Your task to perform on an android device: turn on javascript in the chrome app Image 0: 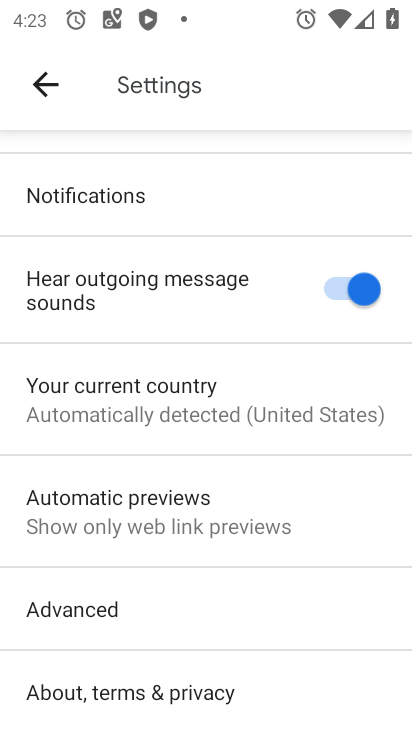
Step 0: press home button
Your task to perform on an android device: turn on javascript in the chrome app Image 1: 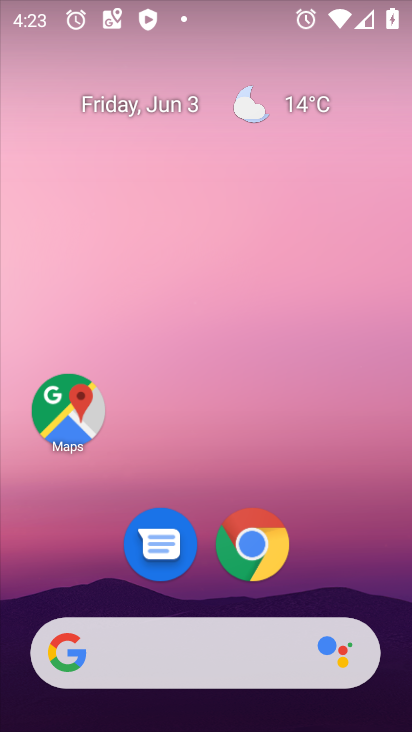
Step 1: click (251, 544)
Your task to perform on an android device: turn on javascript in the chrome app Image 2: 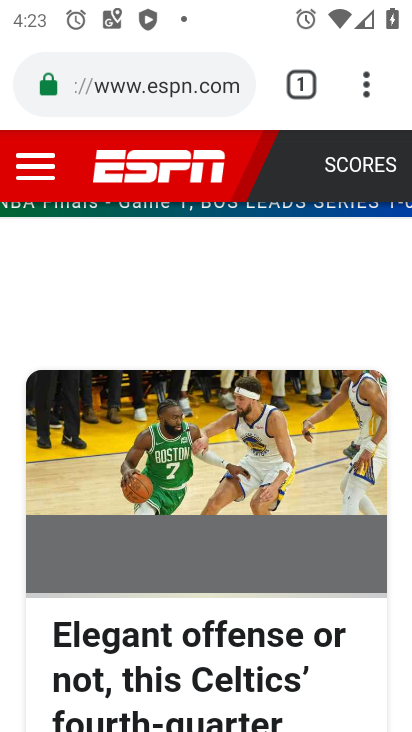
Step 2: click (365, 91)
Your task to perform on an android device: turn on javascript in the chrome app Image 3: 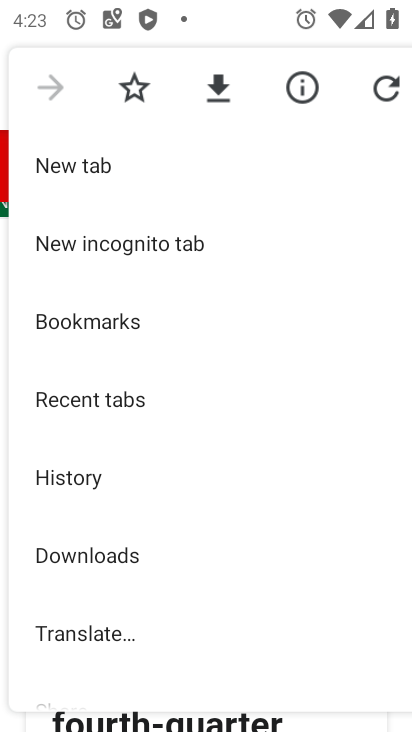
Step 3: drag from (170, 645) to (270, 185)
Your task to perform on an android device: turn on javascript in the chrome app Image 4: 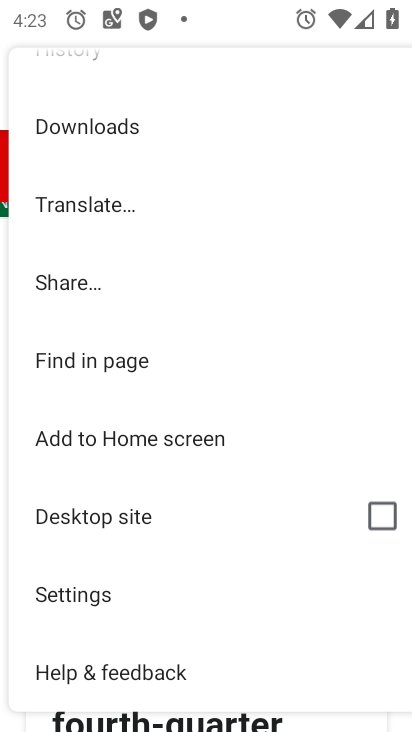
Step 4: click (90, 590)
Your task to perform on an android device: turn on javascript in the chrome app Image 5: 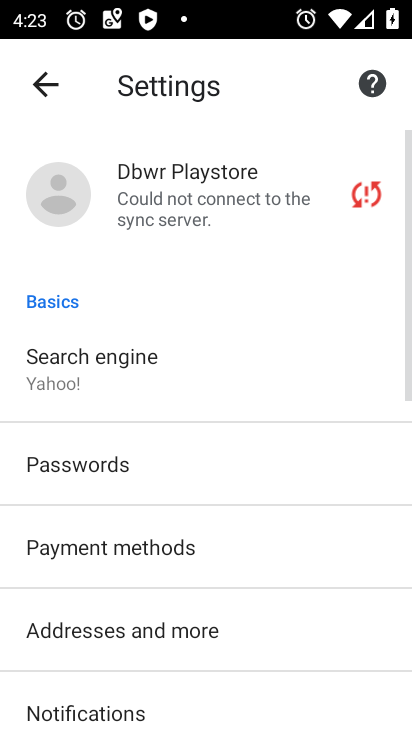
Step 5: drag from (242, 614) to (236, 316)
Your task to perform on an android device: turn on javascript in the chrome app Image 6: 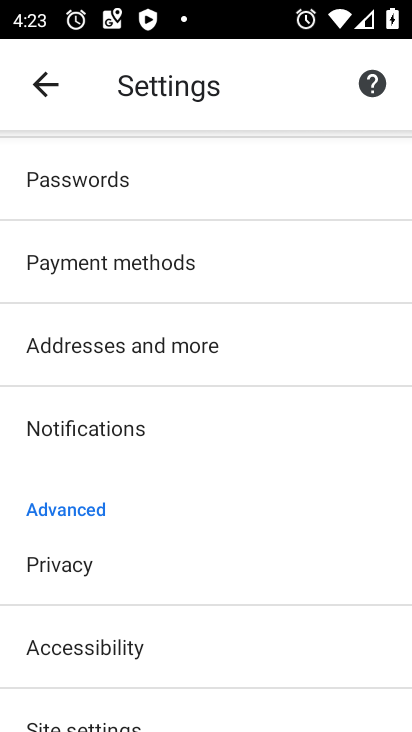
Step 6: drag from (238, 631) to (245, 219)
Your task to perform on an android device: turn on javascript in the chrome app Image 7: 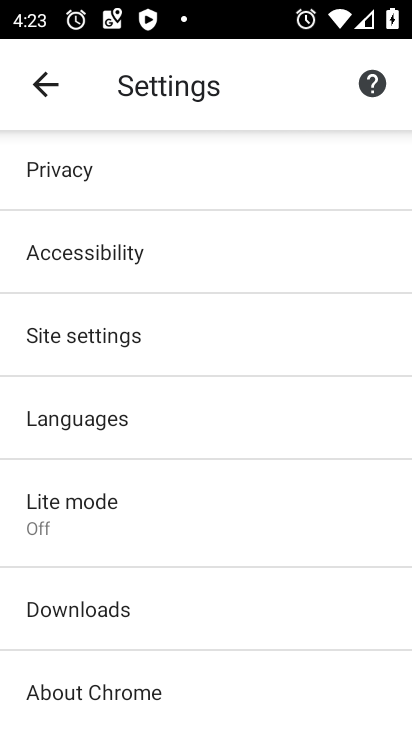
Step 7: click (90, 343)
Your task to perform on an android device: turn on javascript in the chrome app Image 8: 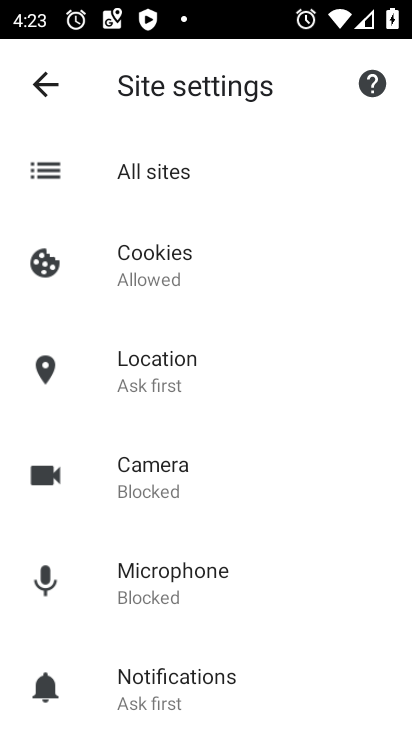
Step 8: drag from (257, 649) to (247, 237)
Your task to perform on an android device: turn on javascript in the chrome app Image 9: 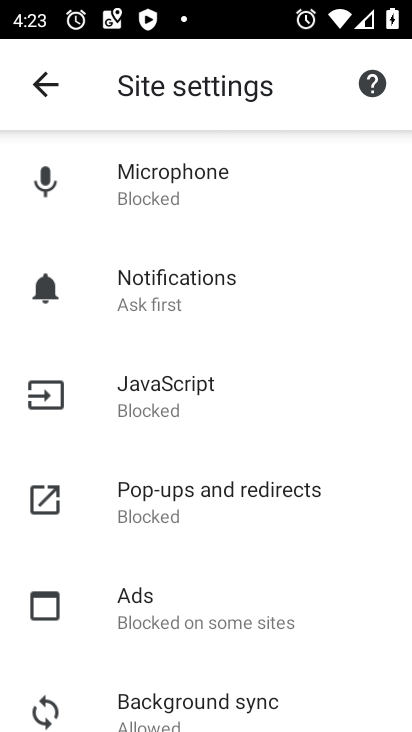
Step 9: click (151, 400)
Your task to perform on an android device: turn on javascript in the chrome app Image 10: 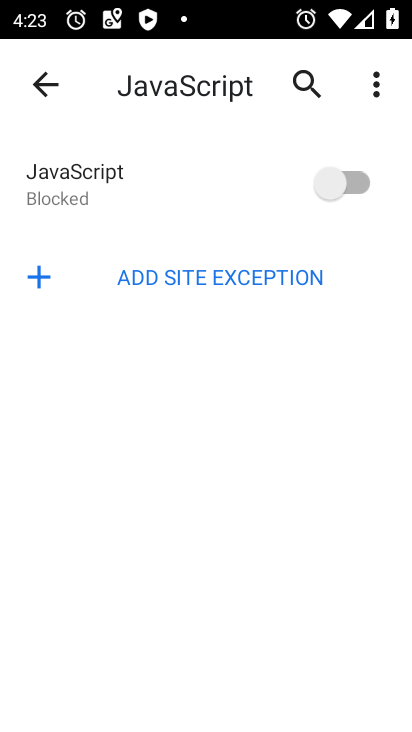
Step 10: click (365, 183)
Your task to perform on an android device: turn on javascript in the chrome app Image 11: 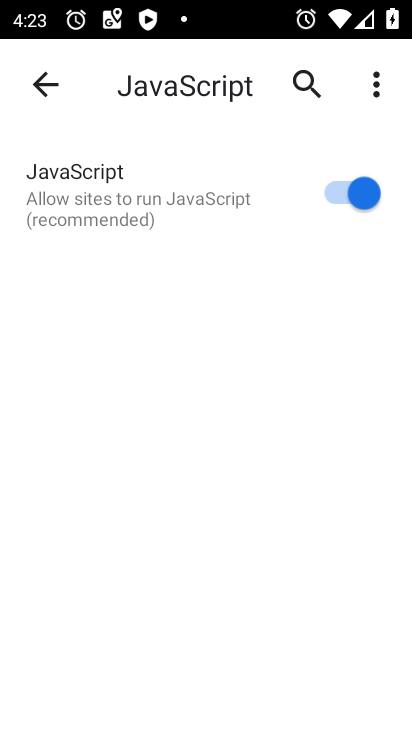
Step 11: task complete